Your task to perform on an android device: Open Android settings Image 0: 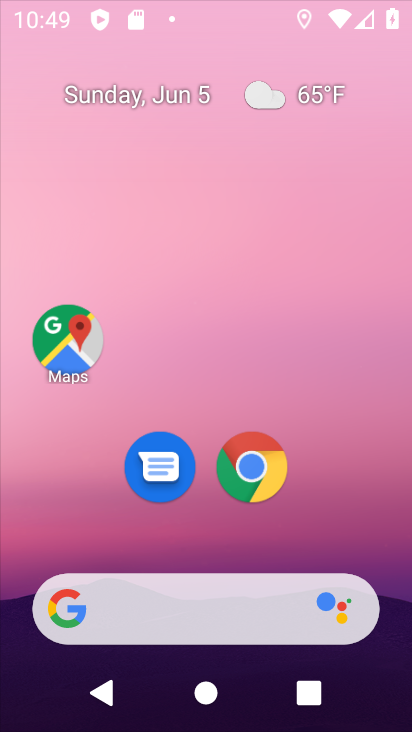
Step 0: drag from (269, 523) to (324, 80)
Your task to perform on an android device: Open Android settings Image 1: 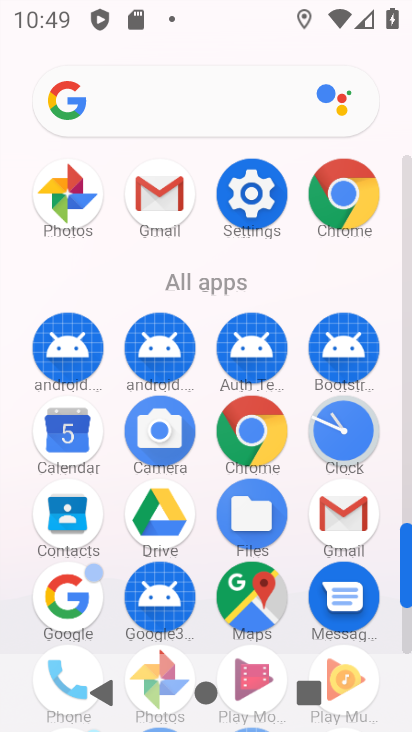
Step 1: click (234, 192)
Your task to perform on an android device: Open Android settings Image 2: 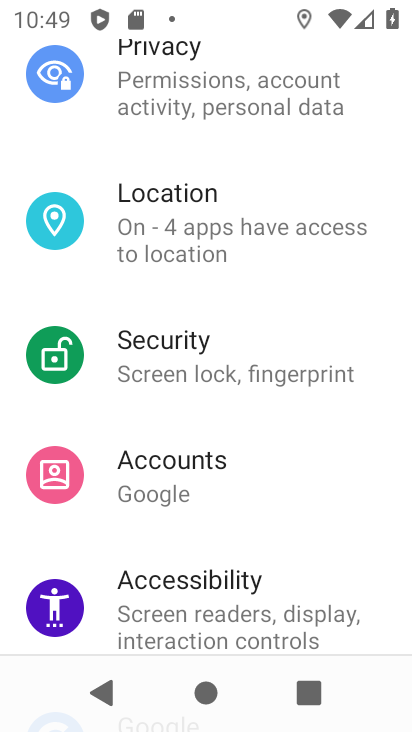
Step 2: drag from (245, 565) to (366, 35)
Your task to perform on an android device: Open Android settings Image 3: 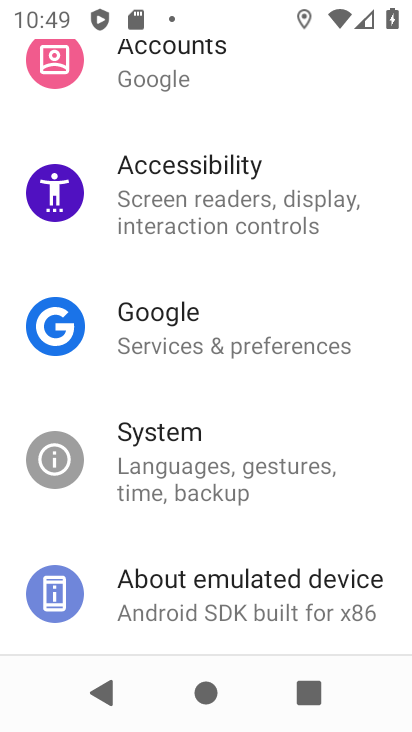
Step 3: drag from (303, 546) to (366, 138)
Your task to perform on an android device: Open Android settings Image 4: 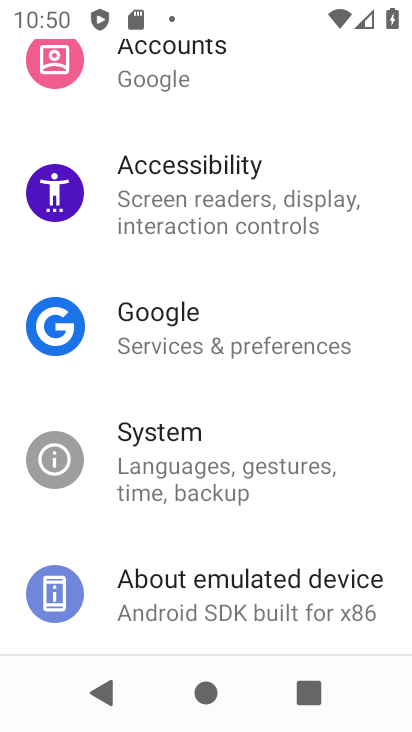
Step 4: click (143, 618)
Your task to perform on an android device: Open Android settings Image 5: 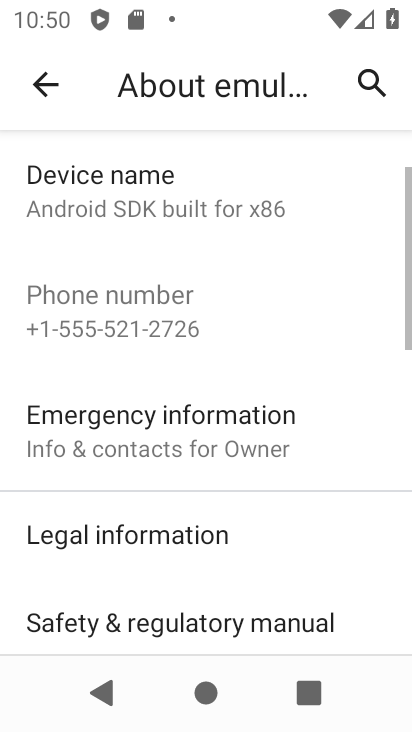
Step 5: drag from (173, 552) to (161, 410)
Your task to perform on an android device: Open Android settings Image 6: 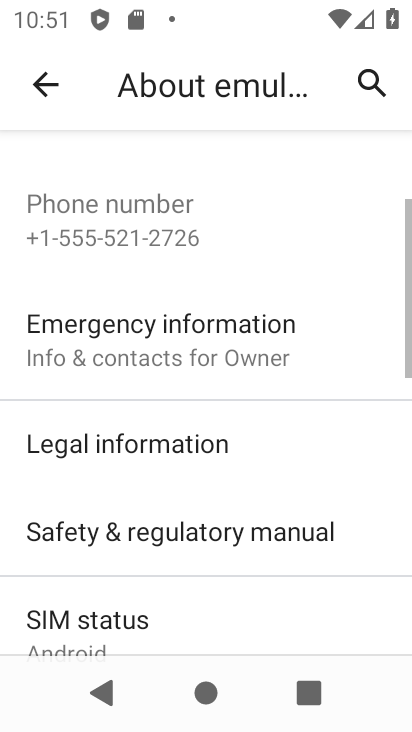
Step 6: drag from (160, 619) to (163, 198)
Your task to perform on an android device: Open Android settings Image 7: 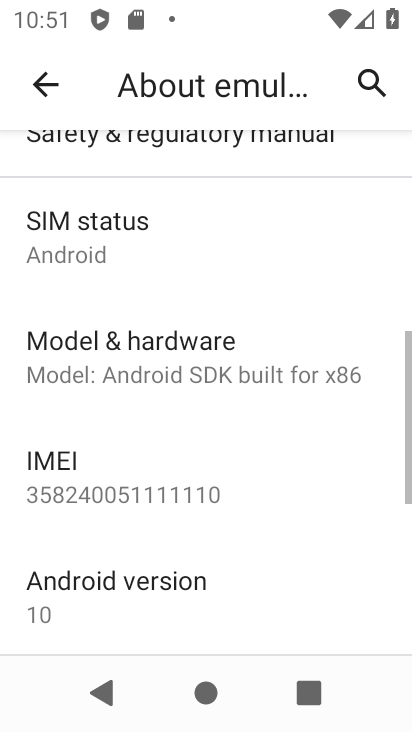
Step 7: click (199, 579)
Your task to perform on an android device: Open Android settings Image 8: 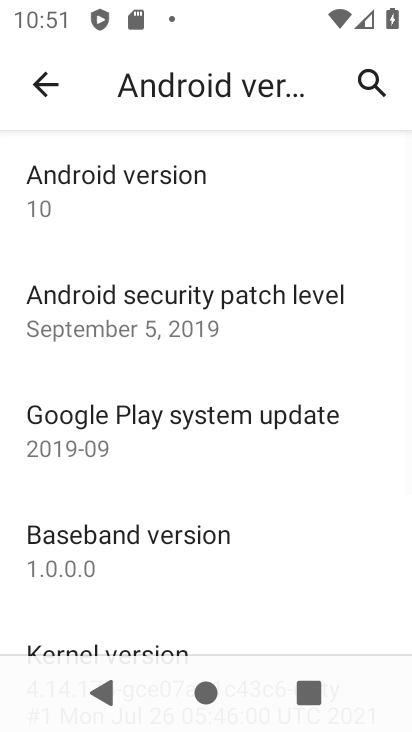
Step 8: click (214, 192)
Your task to perform on an android device: Open Android settings Image 9: 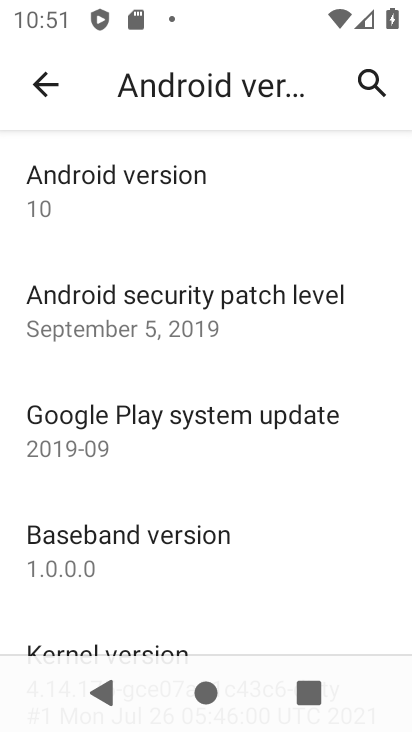
Step 9: task complete